Your task to perform on an android device: Open Chrome and go to settings Image 0: 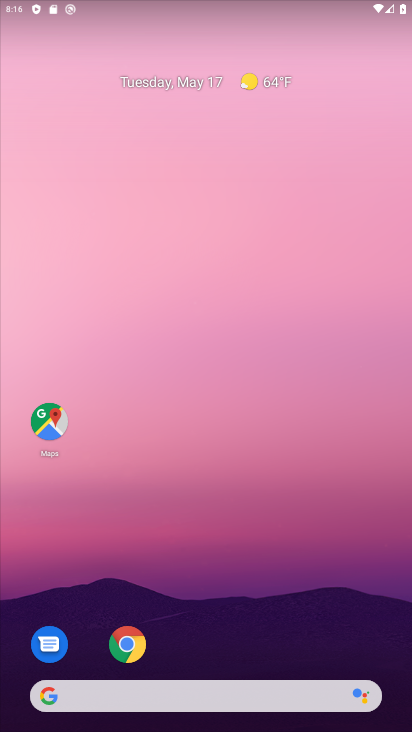
Step 0: click (126, 647)
Your task to perform on an android device: Open Chrome and go to settings Image 1: 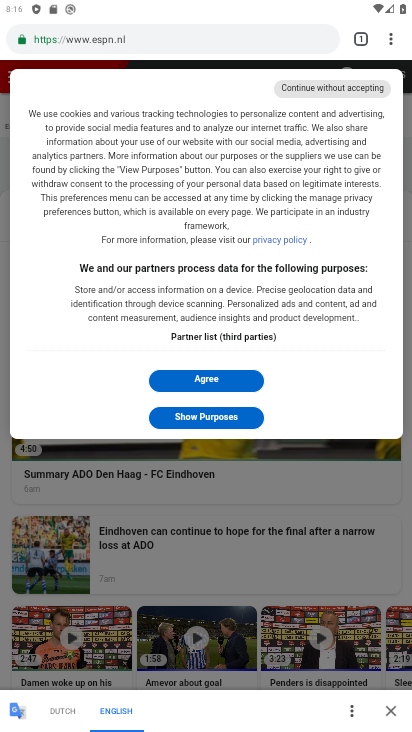
Step 1: task complete